Your task to perform on an android device: Open Chrome and go to the settings page Image 0: 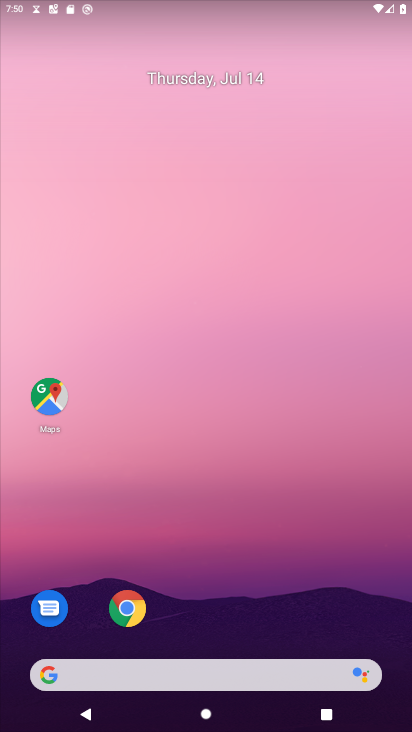
Step 0: click (123, 608)
Your task to perform on an android device: Open Chrome and go to the settings page Image 1: 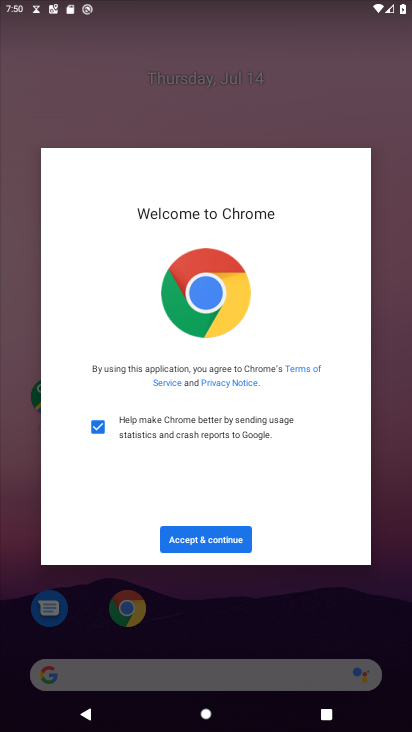
Step 1: click (236, 535)
Your task to perform on an android device: Open Chrome and go to the settings page Image 2: 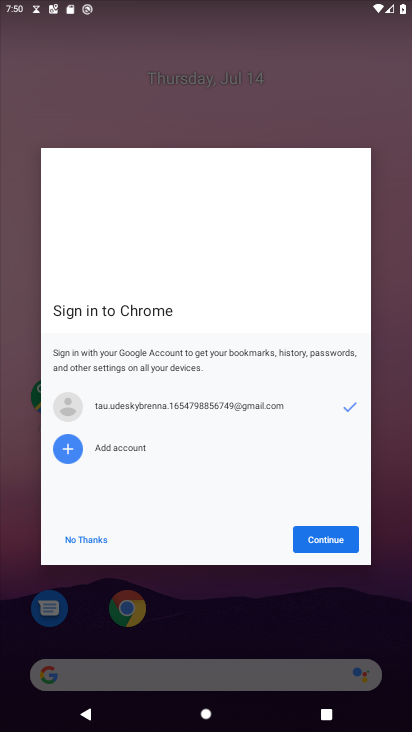
Step 2: click (311, 529)
Your task to perform on an android device: Open Chrome and go to the settings page Image 3: 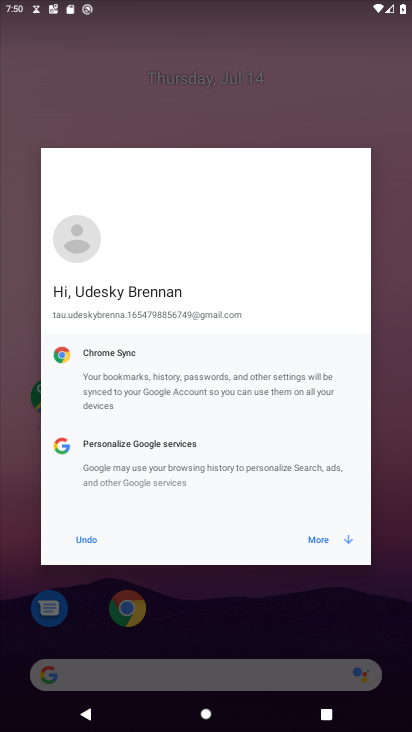
Step 3: click (327, 545)
Your task to perform on an android device: Open Chrome and go to the settings page Image 4: 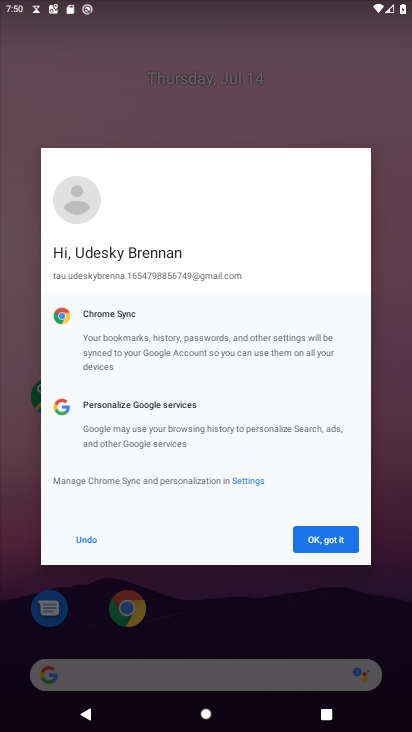
Step 4: click (328, 547)
Your task to perform on an android device: Open Chrome and go to the settings page Image 5: 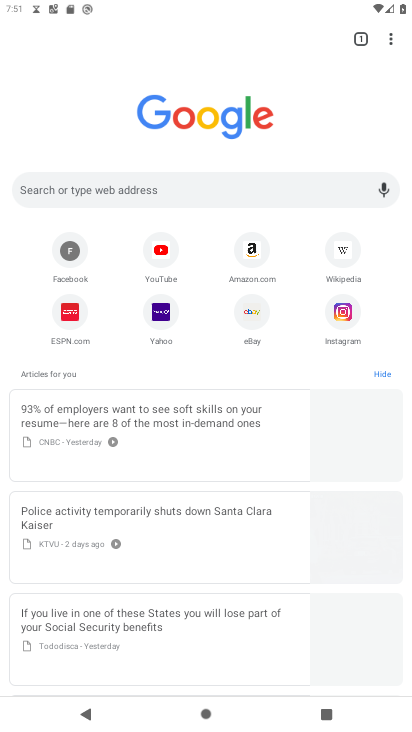
Step 5: click (393, 32)
Your task to perform on an android device: Open Chrome and go to the settings page Image 6: 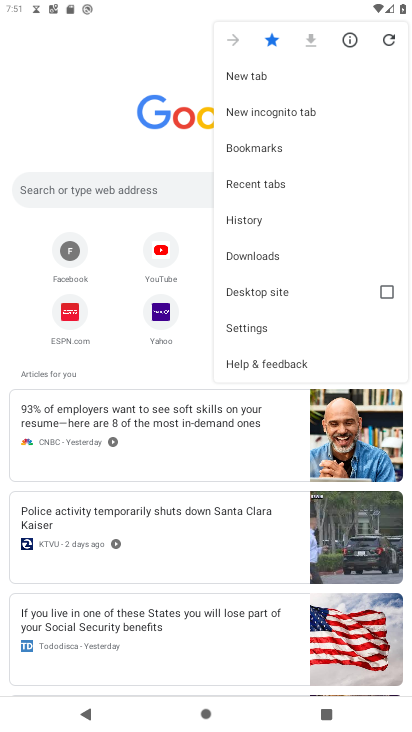
Step 6: click (257, 332)
Your task to perform on an android device: Open Chrome and go to the settings page Image 7: 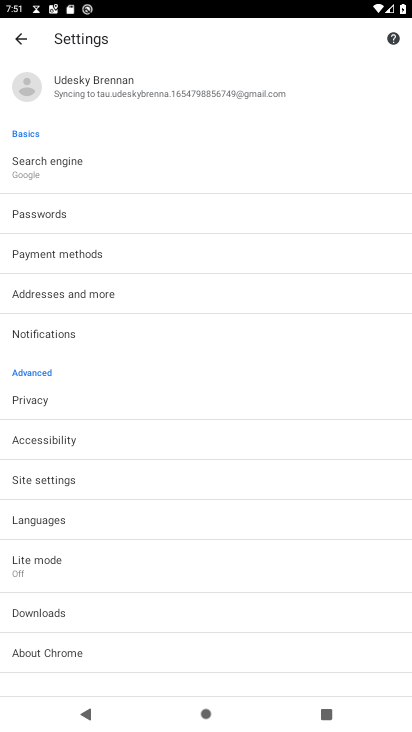
Step 7: task complete